Your task to perform on an android device: turn on translation in the chrome app Image 0: 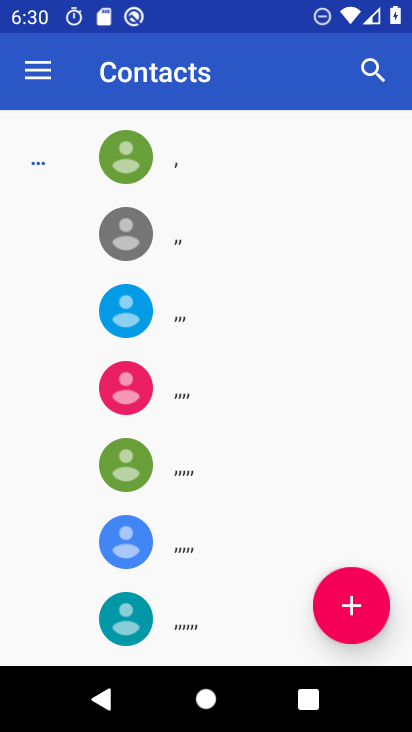
Step 0: press home button
Your task to perform on an android device: turn on translation in the chrome app Image 1: 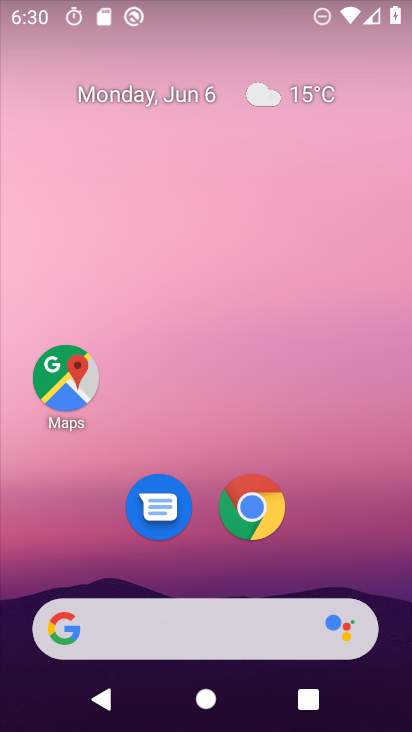
Step 1: drag from (192, 551) to (245, 115)
Your task to perform on an android device: turn on translation in the chrome app Image 2: 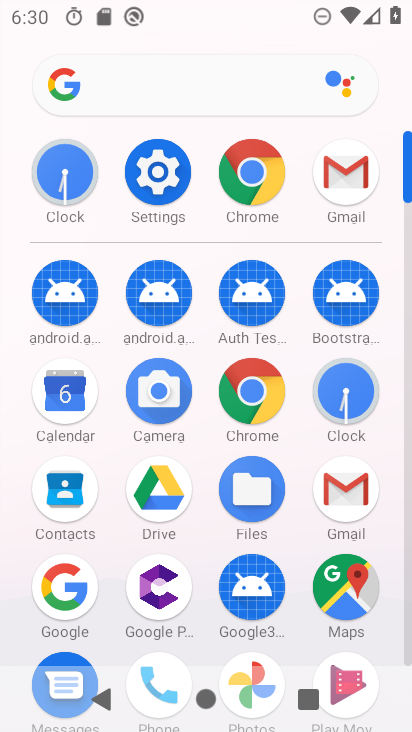
Step 2: click (161, 172)
Your task to perform on an android device: turn on translation in the chrome app Image 3: 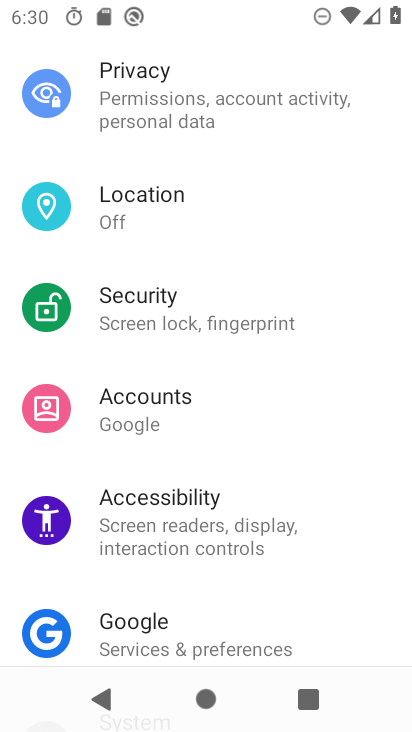
Step 3: drag from (170, 209) to (160, 675)
Your task to perform on an android device: turn on translation in the chrome app Image 4: 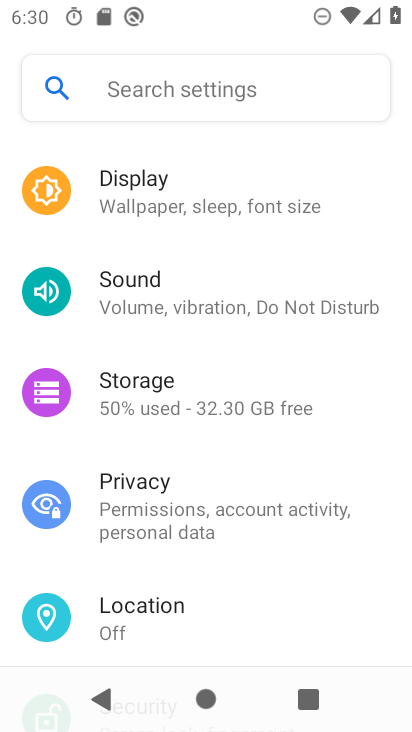
Step 4: click (146, 208)
Your task to perform on an android device: turn on translation in the chrome app Image 5: 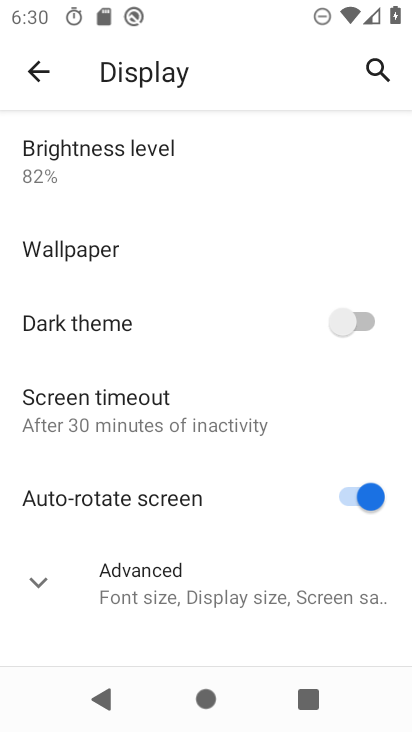
Step 5: click (167, 597)
Your task to perform on an android device: turn on translation in the chrome app Image 6: 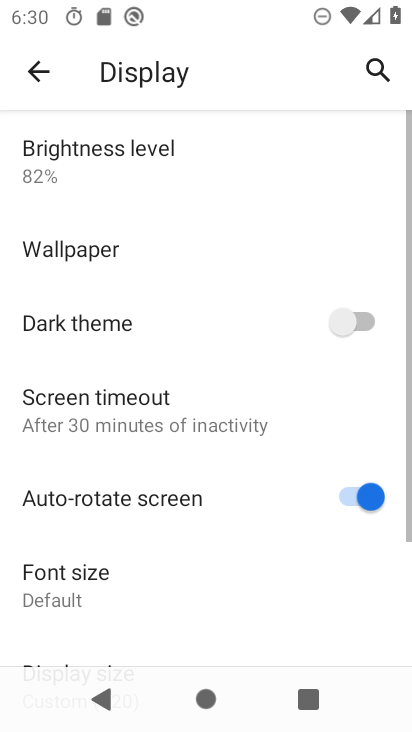
Step 6: drag from (167, 597) to (142, 296)
Your task to perform on an android device: turn on translation in the chrome app Image 7: 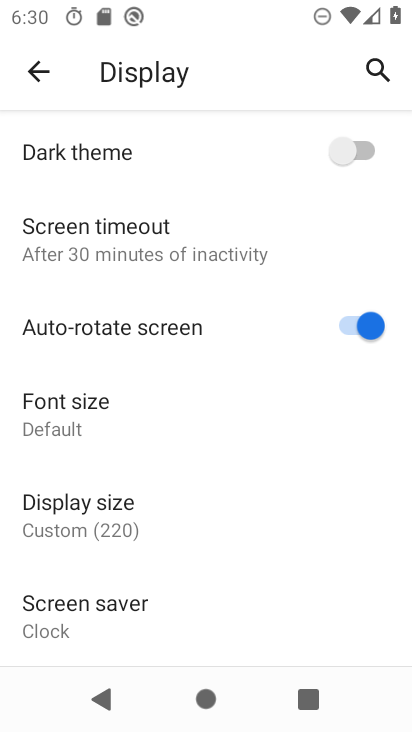
Step 7: click (68, 431)
Your task to perform on an android device: turn on translation in the chrome app Image 8: 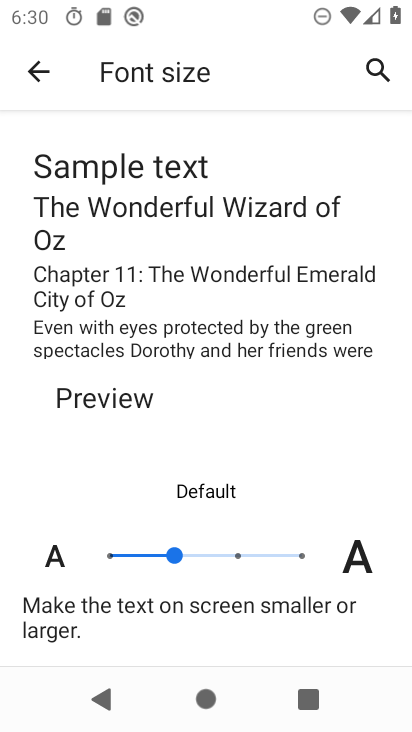
Step 8: click (222, 554)
Your task to perform on an android device: turn on translation in the chrome app Image 9: 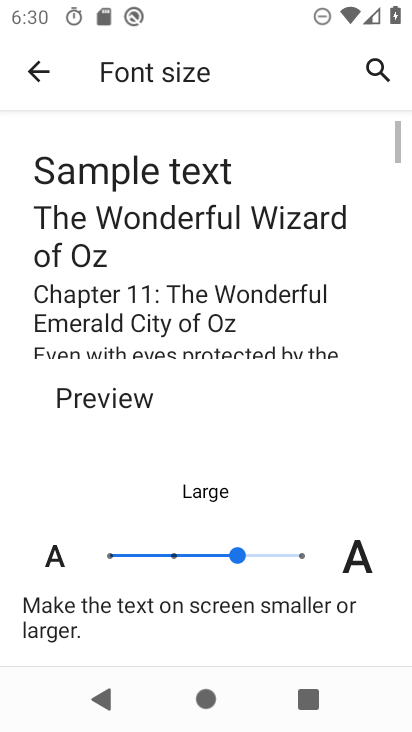
Step 9: task complete